Your task to perform on an android device: Open sound settings Image 0: 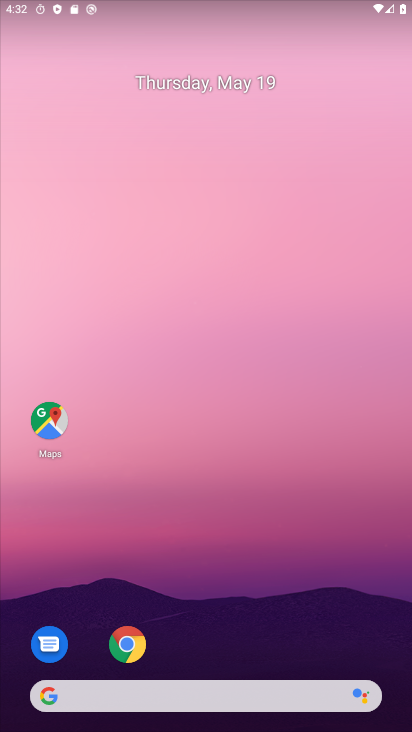
Step 0: drag from (246, 428) to (281, 161)
Your task to perform on an android device: Open sound settings Image 1: 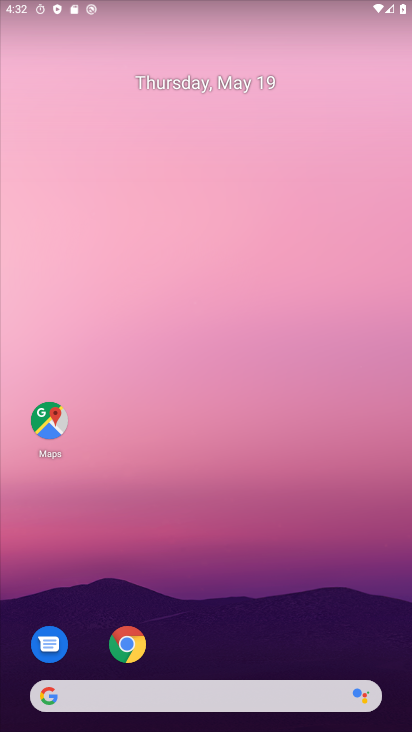
Step 1: drag from (321, 628) to (287, 169)
Your task to perform on an android device: Open sound settings Image 2: 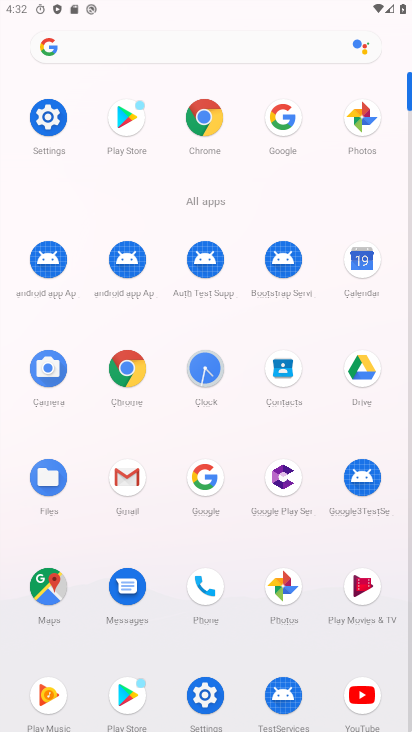
Step 2: click (42, 111)
Your task to perform on an android device: Open sound settings Image 3: 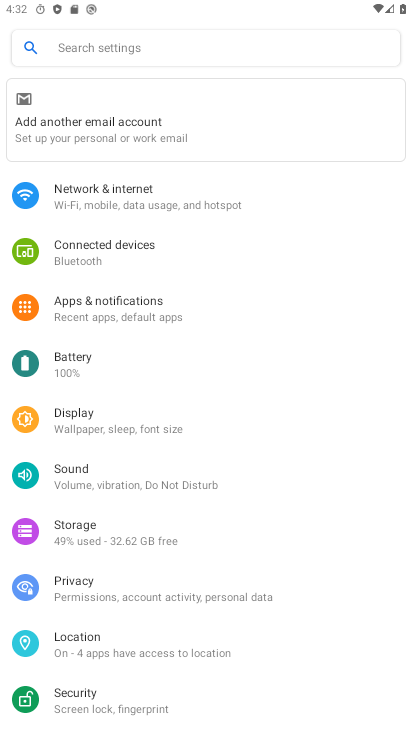
Step 3: click (94, 480)
Your task to perform on an android device: Open sound settings Image 4: 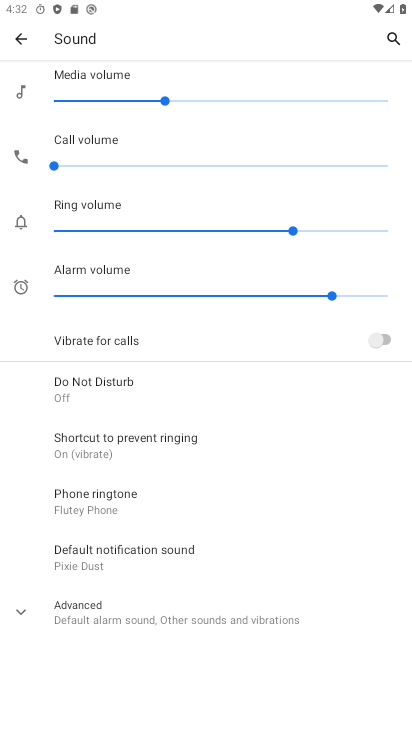
Step 4: click (171, 601)
Your task to perform on an android device: Open sound settings Image 5: 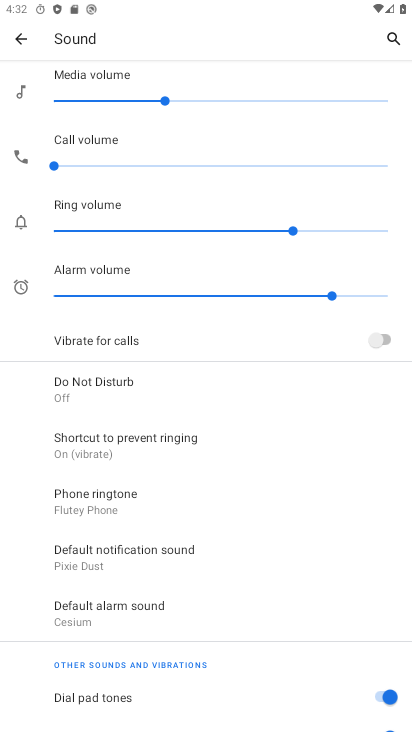
Step 5: task complete